Your task to perform on an android device: turn on the 12-hour format for clock Image 0: 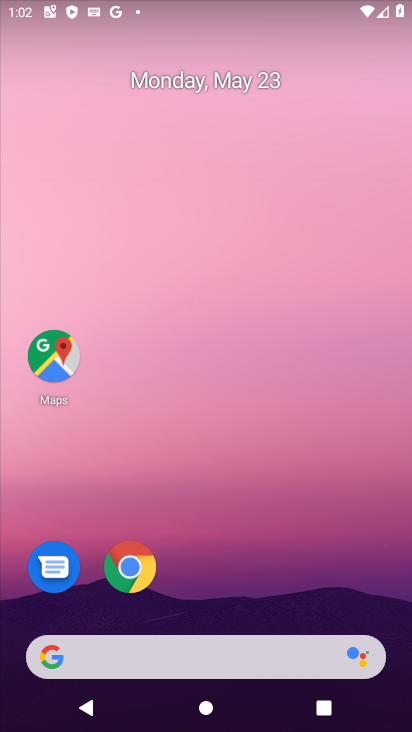
Step 0: drag from (223, 580) to (166, 128)
Your task to perform on an android device: turn on the 12-hour format for clock Image 1: 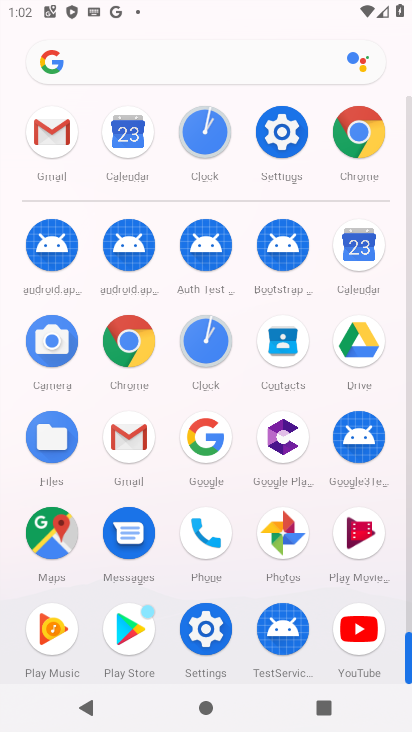
Step 1: click (205, 124)
Your task to perform on an android device: turn on the 12-hour format for clock Image 2: 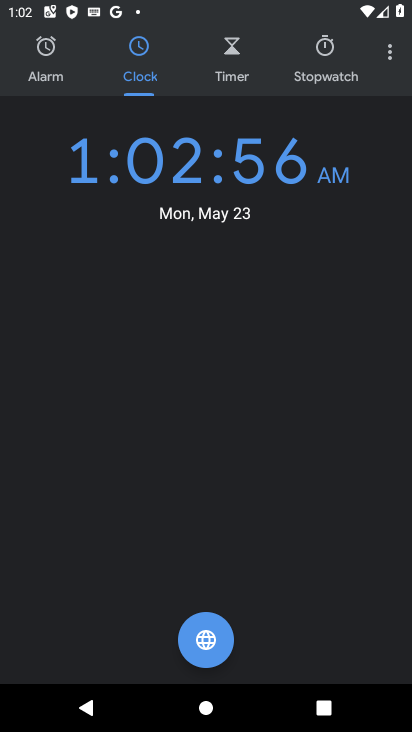
Step 2: click (386, 63)
Your task to perform on an android device: turn on the 12-hour format for clock Image 3: 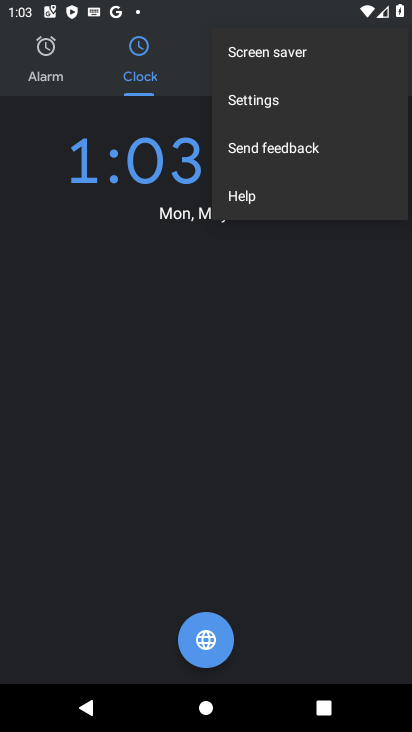
Step 3: click (283, 113)
Your task to perform on an android device: turn on the 12-hour format for clock Image 4: 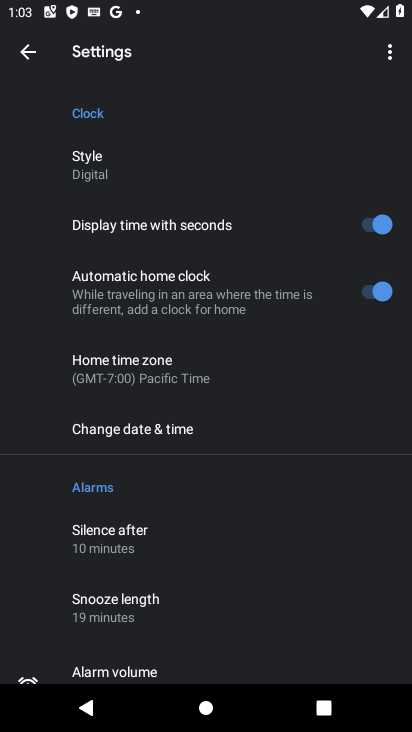
Step 4: drag from (265, 640) to (227, 164)
Your task to perform on an android device: turn on the 12-hour format for clock Image 5: 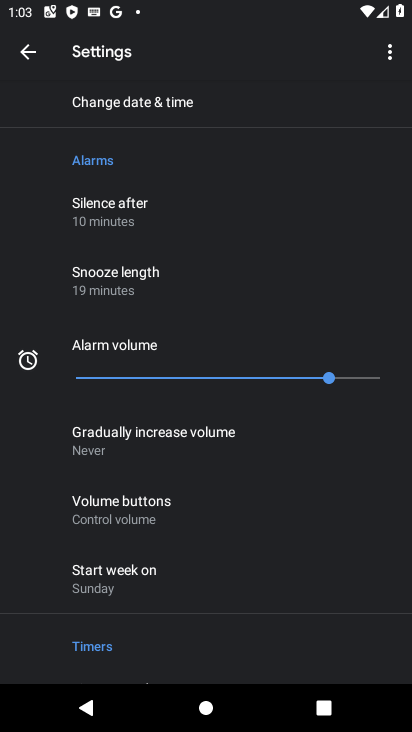
Step 5: click (233, 106)
Your task to perform on an android device: turn on the 12-hour format for clock Image 6: 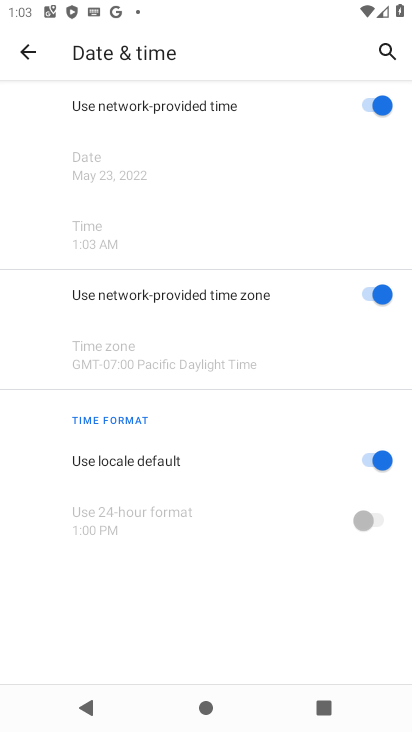
Step 6: task complete